Your task to perform on an android device: see tabs open on other devices in the chrome app Image 0: 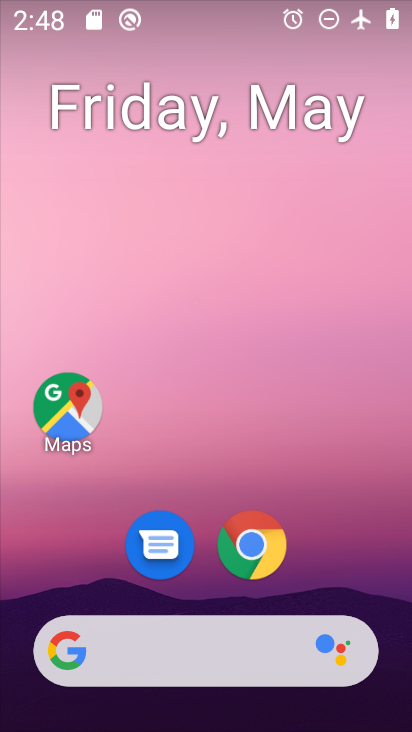
Step 0: drag from (322, 503) to (311, 269)
Your task to perform on an android device: see tabs open on other devices in the chrome app Image 1: 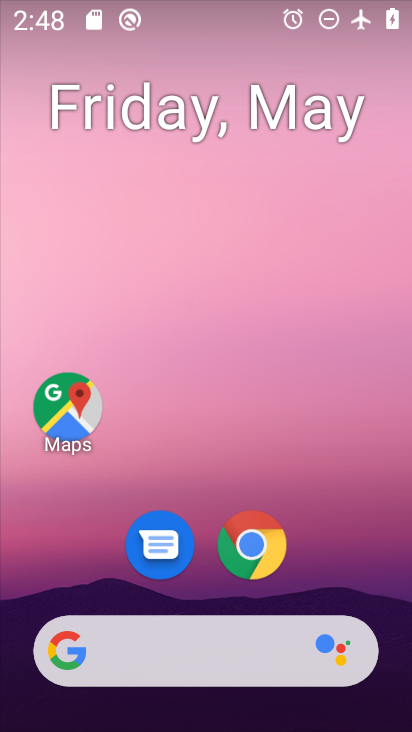
Step 1: drag from (341, 492) to (327, 263)
Your task to perform on an android device: see tabs open on other devices in the chrome app Image 2: 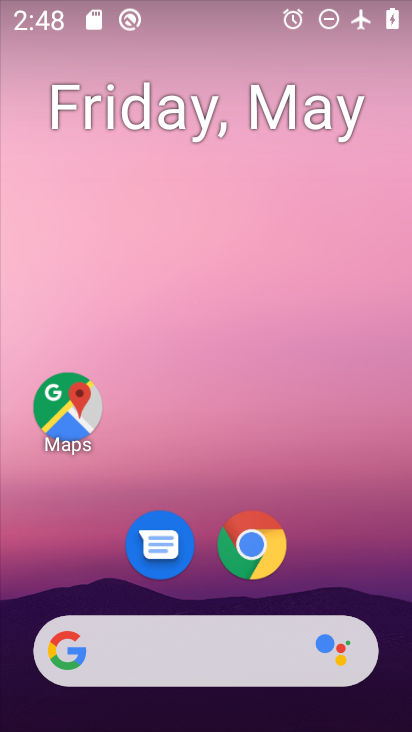
Step 2: click (262, 532)
Your task to perform on an android device: see tabs open on other devices in the chrome app Image 3: 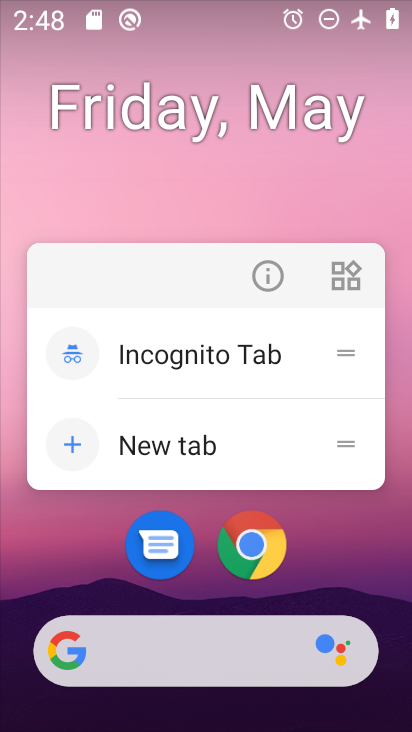
Step 3: click (249, 558)
Your task to perform on an android device: see tabs open on other devices in the chrome app Image 4: 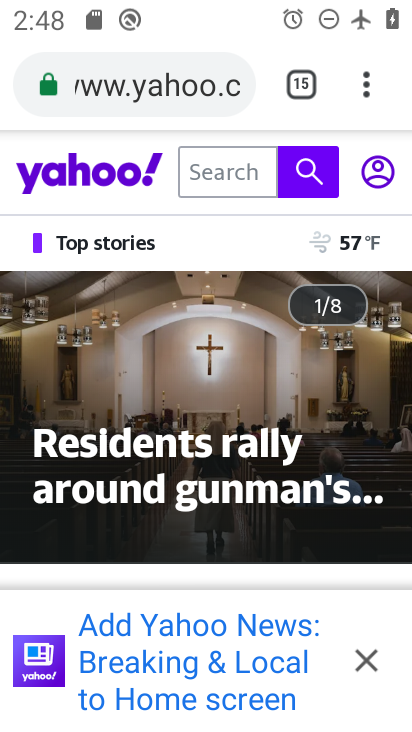
Step 4: click (365, 74)
Your task to perform on an android device: see tabs open on other devices in the chrome app Image 5: 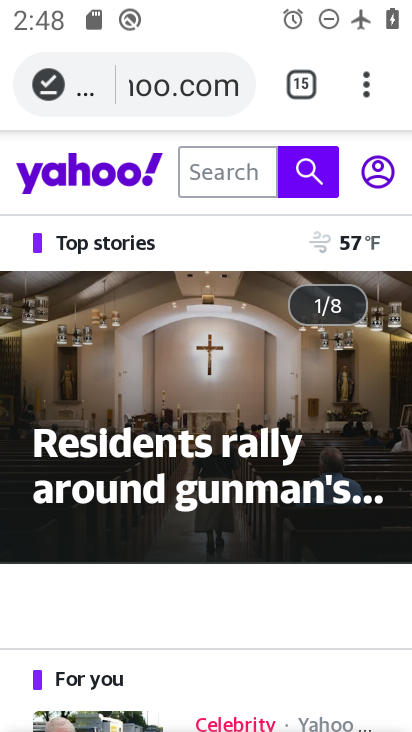
Step 5: click (357, 89)
Your task to perform on an android device: see tabs open on other devices in the chrome app Image 6: 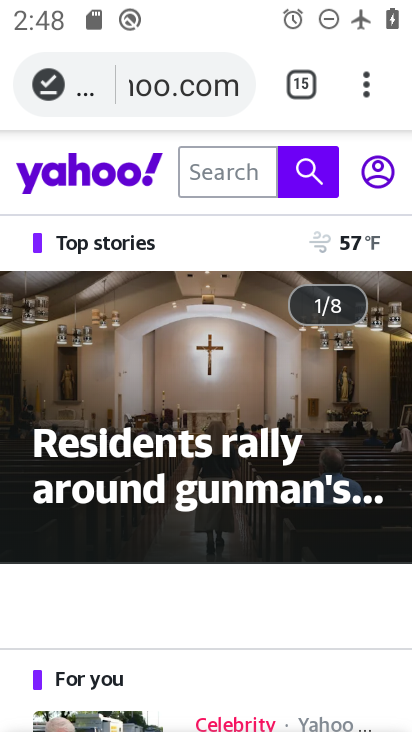
Step 6: click (366, 82)
Your task to perform on an android device: see tabs open on other devices in the chrome app Image 7: 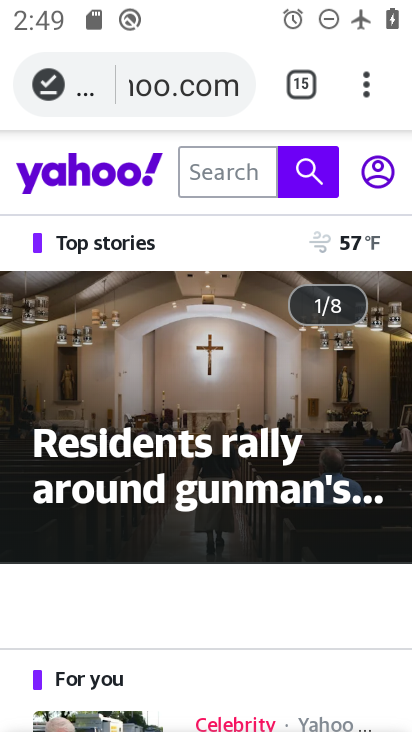
Step 7: click (369, 89)
Your task to perform on an android device: see tabs open on other devices in the chrome app Image 8: 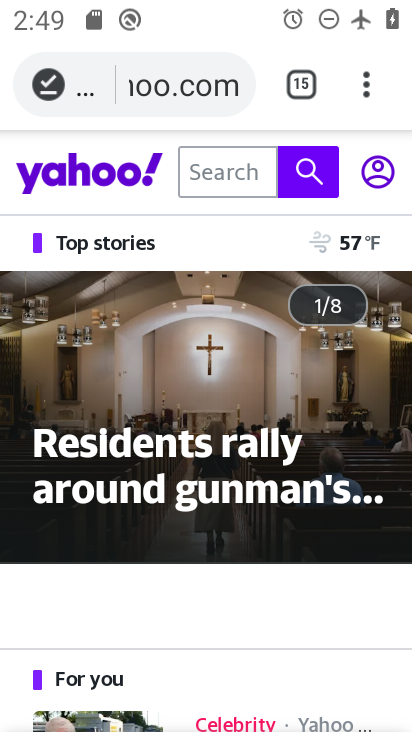
Step 8: click (348, 81)
Your task to perform on an android device: see tabs open on other devices in the chrome app Image 9: 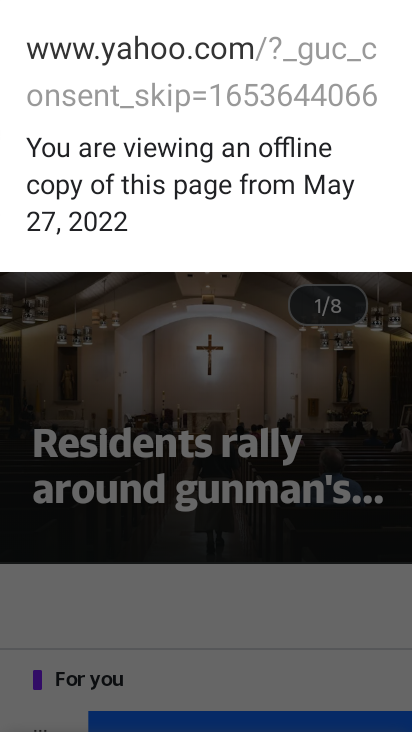
Step 9: press back button
Your task to perform on an android device: see tabs open on other devices in the chrome app Image 10: 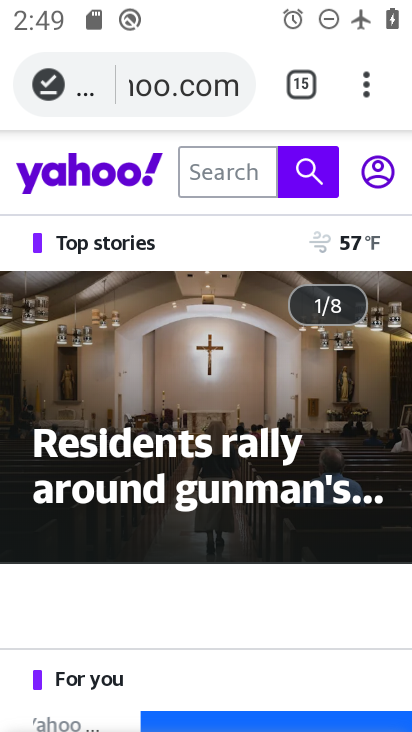
Step 10: click (364, 89)
Your task to perform on an android device: see tabs open on other devices in the chrome app Image 11: 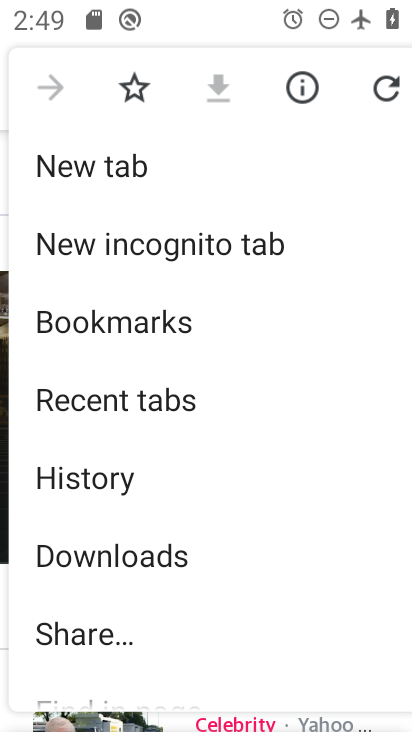
Step 11: click (127, 160)
Your task to perform on an android device: see tabs open on other devices in the chrome app Image 12: 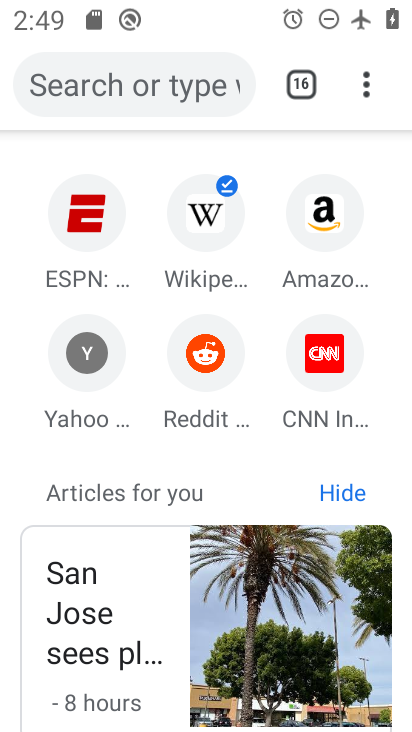
Step 12: task complete